Your task to perform on an android device: add a label to a message in the gmail app Image 0: 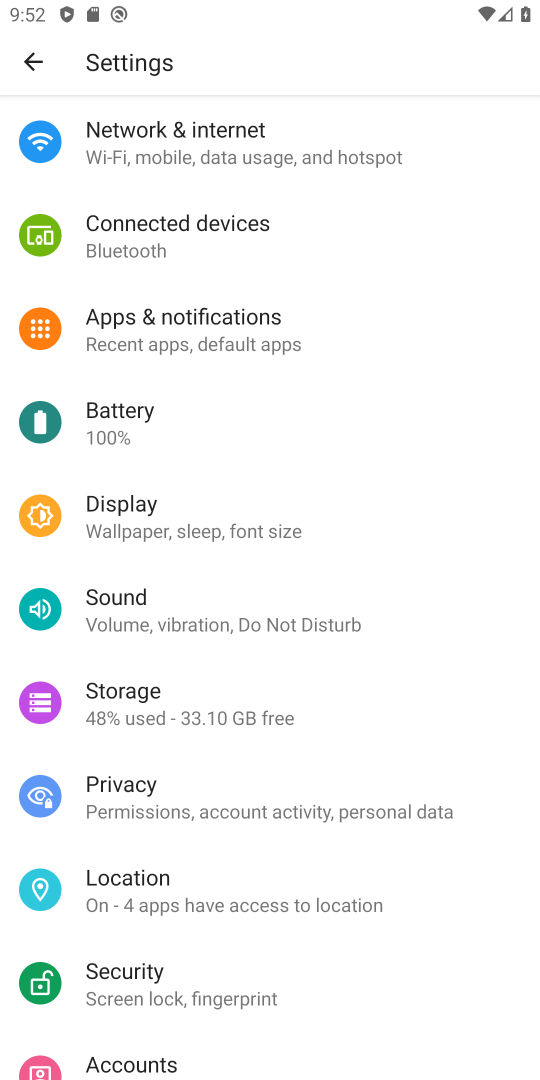
Step 0: press home button
Your task to perform on an android device: add a label to a message in the gmail app Image 1: 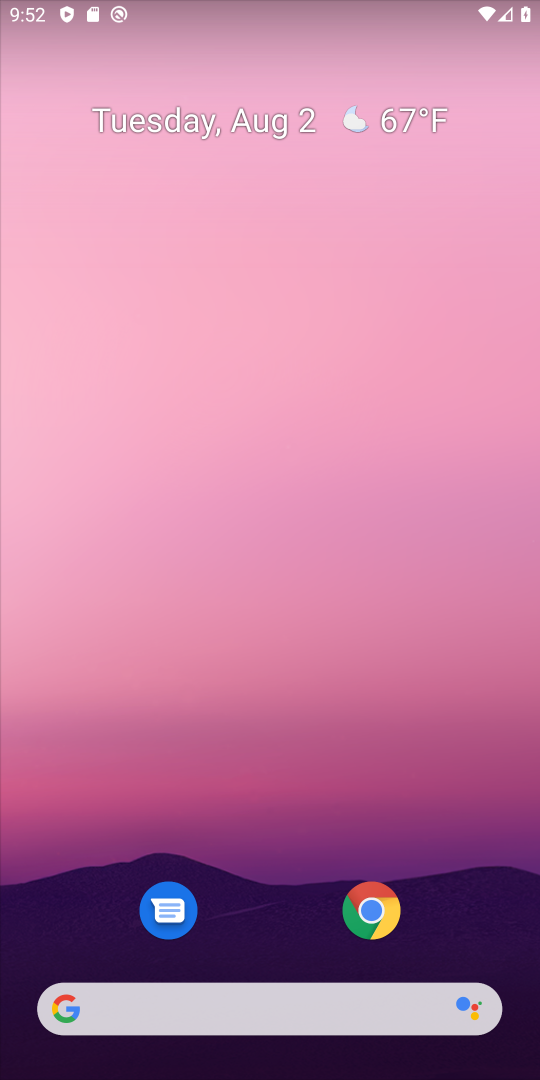
Step 1: drag from (249, 898) to (334, 250)
Your task to perform on an android device: add a label to a message in the gmail app Image 2: 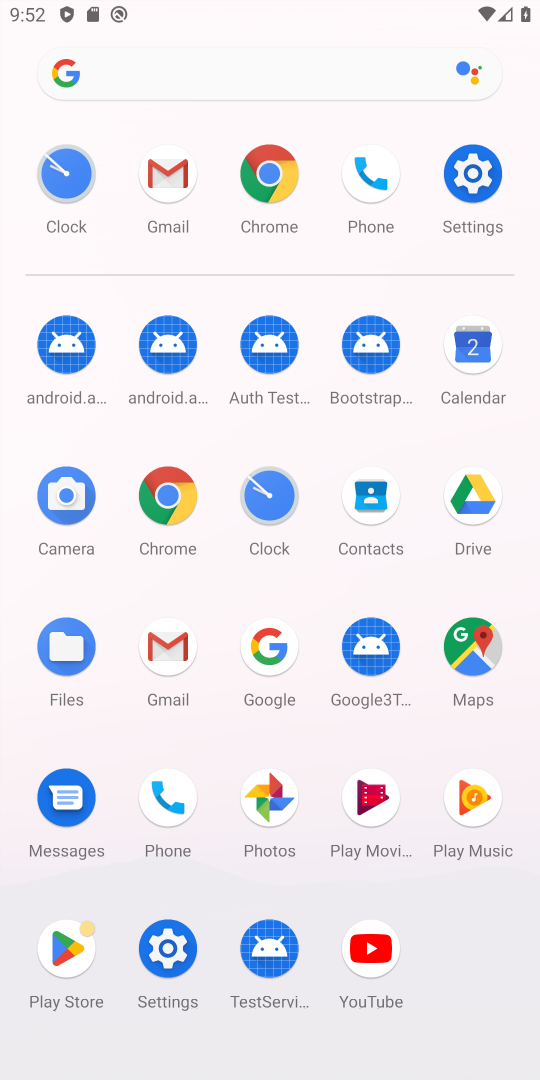
Step 2: click (177, 157)
Your task to perform on an android device: add a label to a message in the gmail app Image 3: 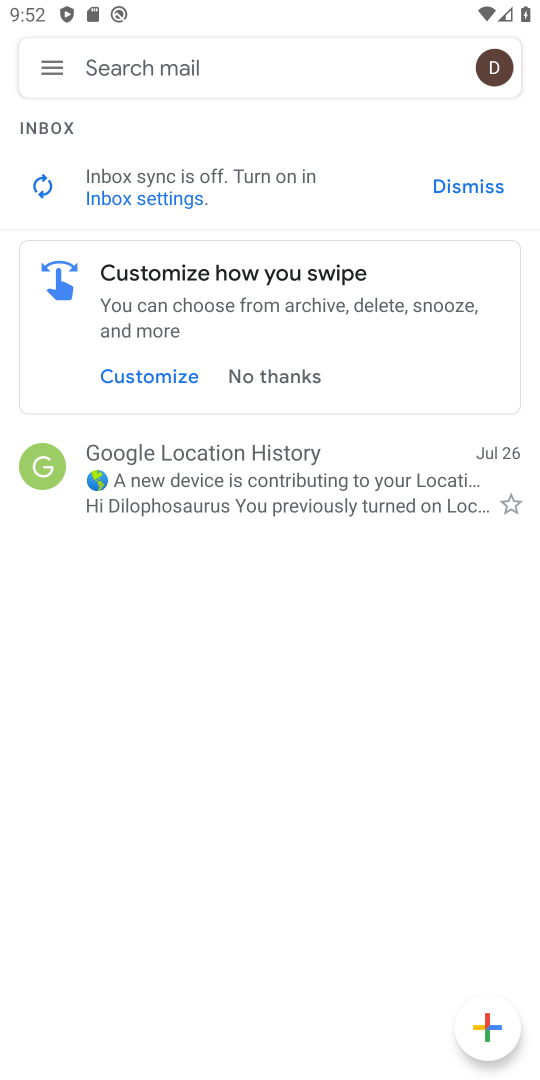
Step 3: click (116, 446)
Your task to perform on an android device: add a label to a message in the gmail app Image 4: 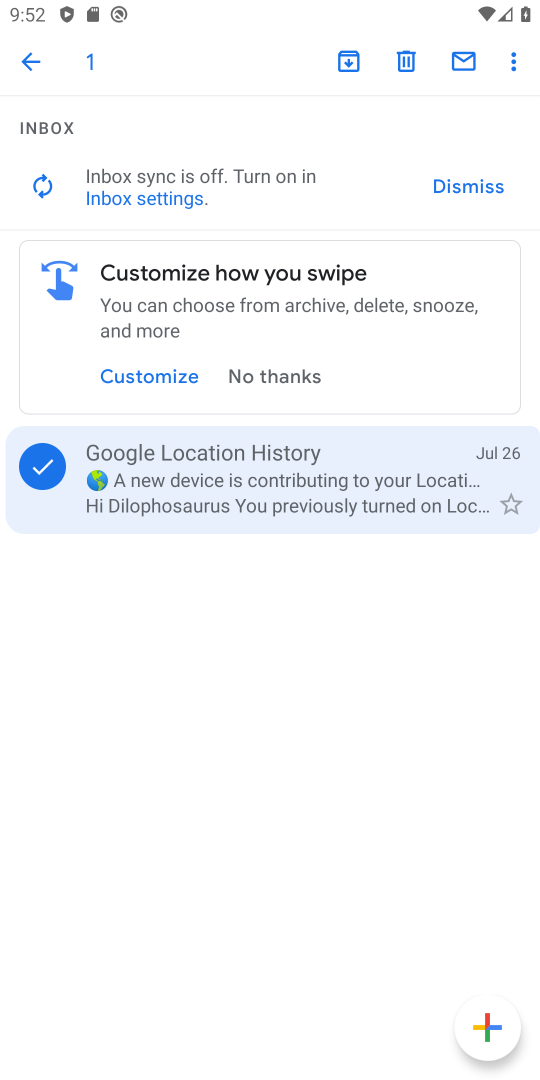
Step 4: click (527, 59)
Your task to perform on an android device: add a label to a message in the gmail app Image 5: 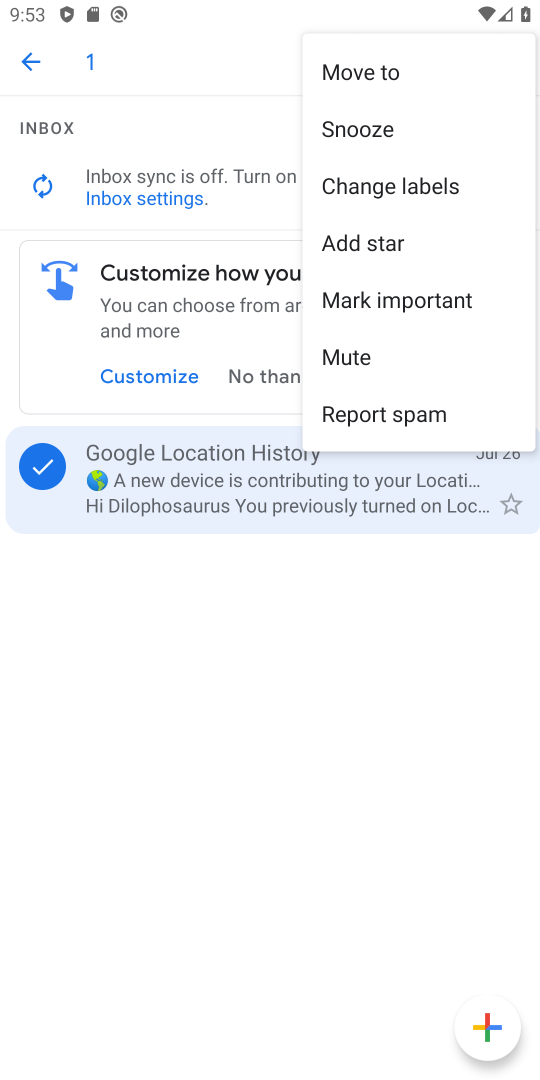
Step 5: click (150, 661)
Your task to perform on an android device: add a label to a message in the gmail app Image 6: 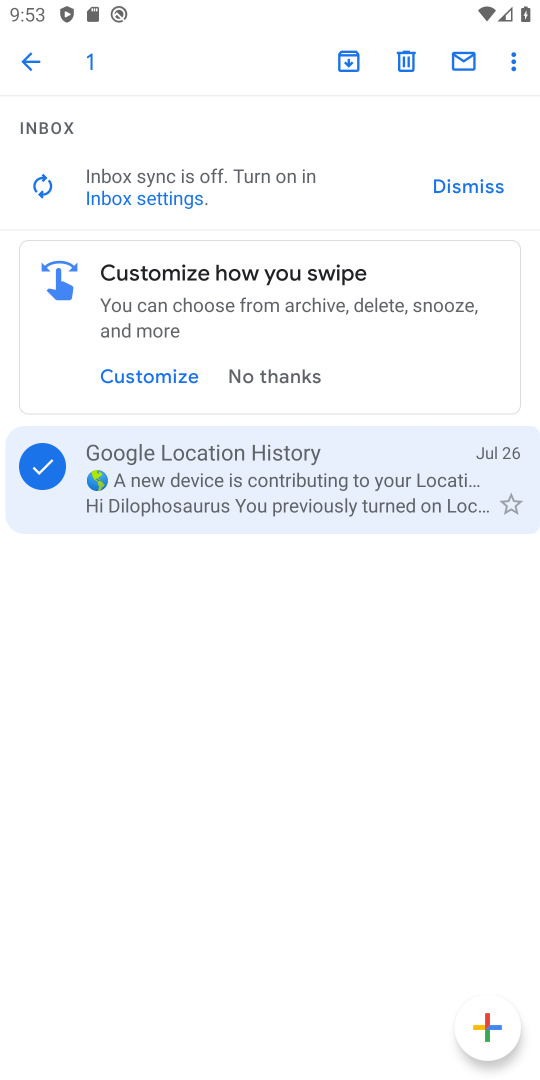
Step 6: click (515, 61)
Your task to perform on an android device: add a label to a message in the gmail app Image 7: 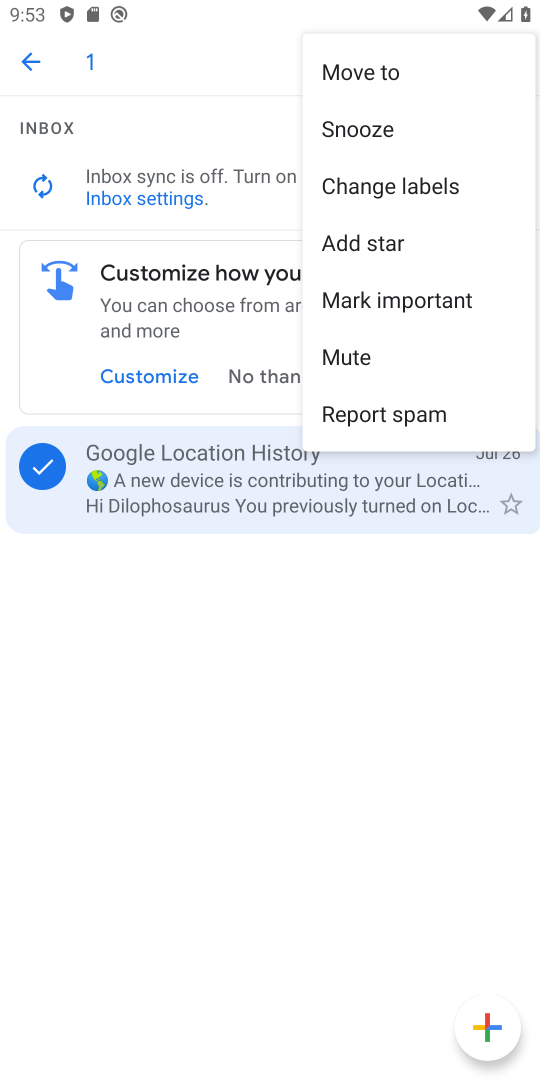
Step 7: click (372, 57)
Your task to perform on an android device: add a label to a message in the gmail app Image 8: 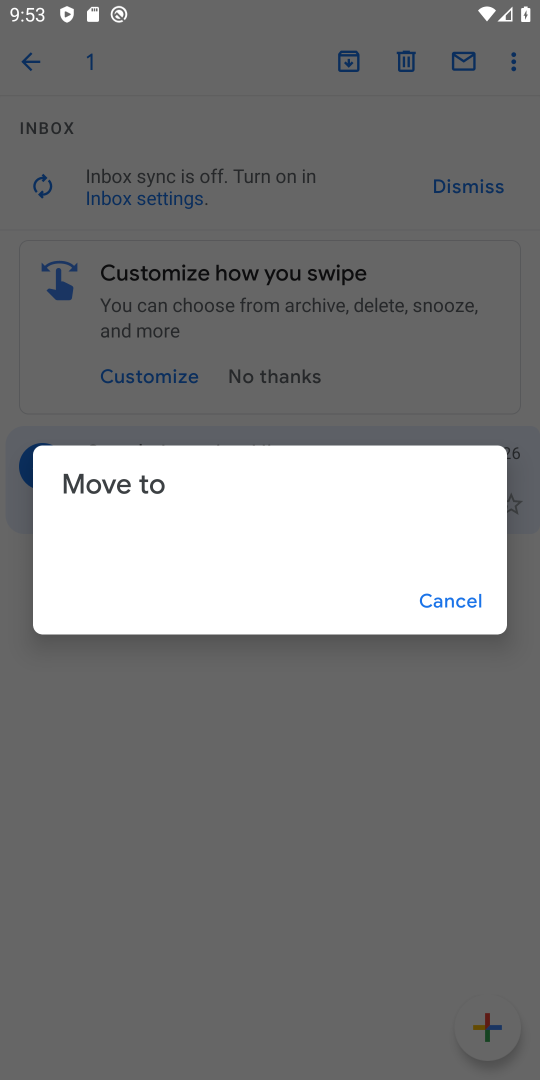
Step 8: click (414, 616)
Your task to perform on an android device: add a label to a message in the gmail app Image 9: 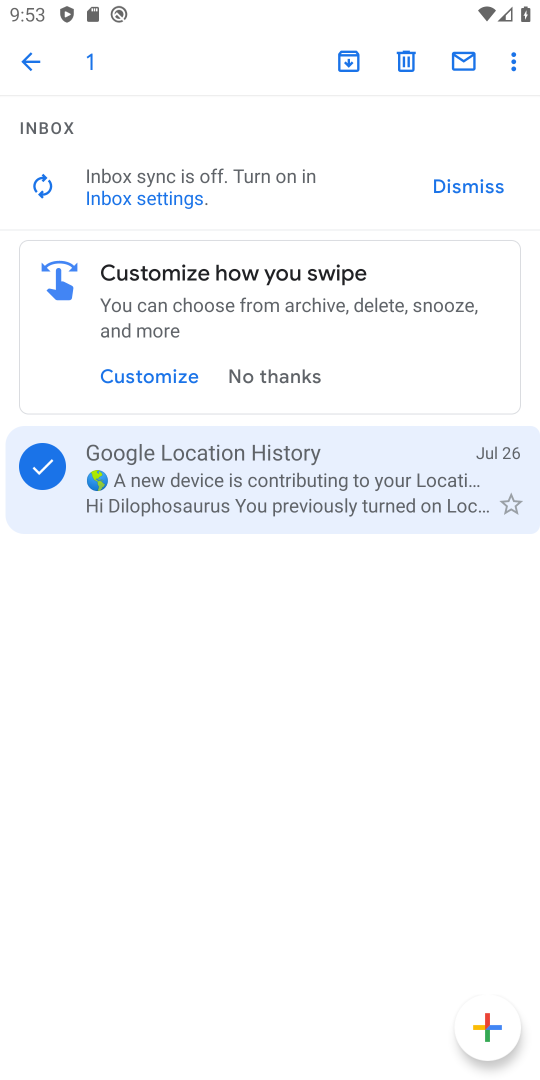
Step 9: click (530, 37)
Your task to perform on an android device: add a label to a message in the gmail app Image 10: 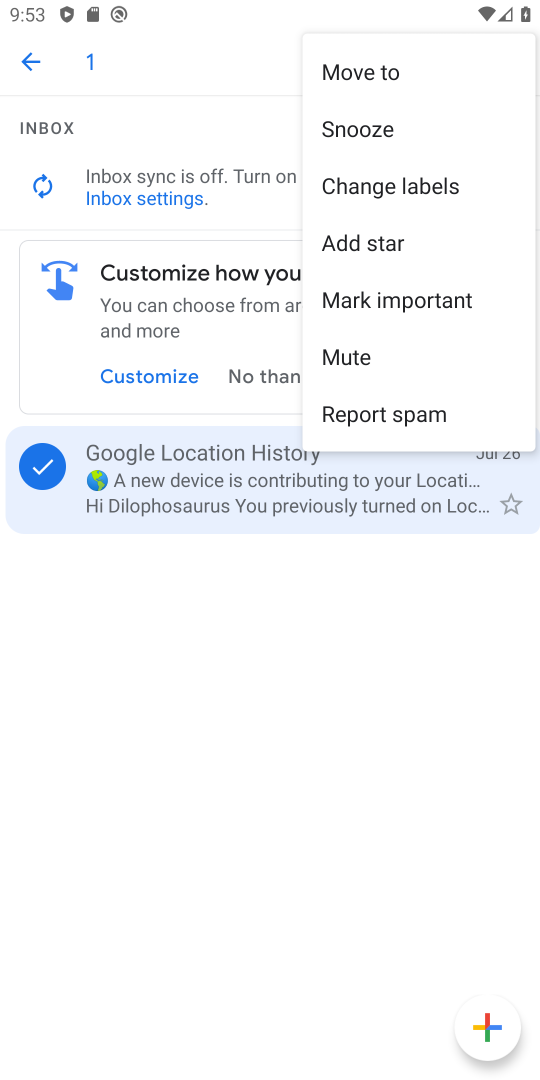
Step 10: click (401, 183)
Your task to perform on an android device: add a label to a message in the gmail app Image 11: 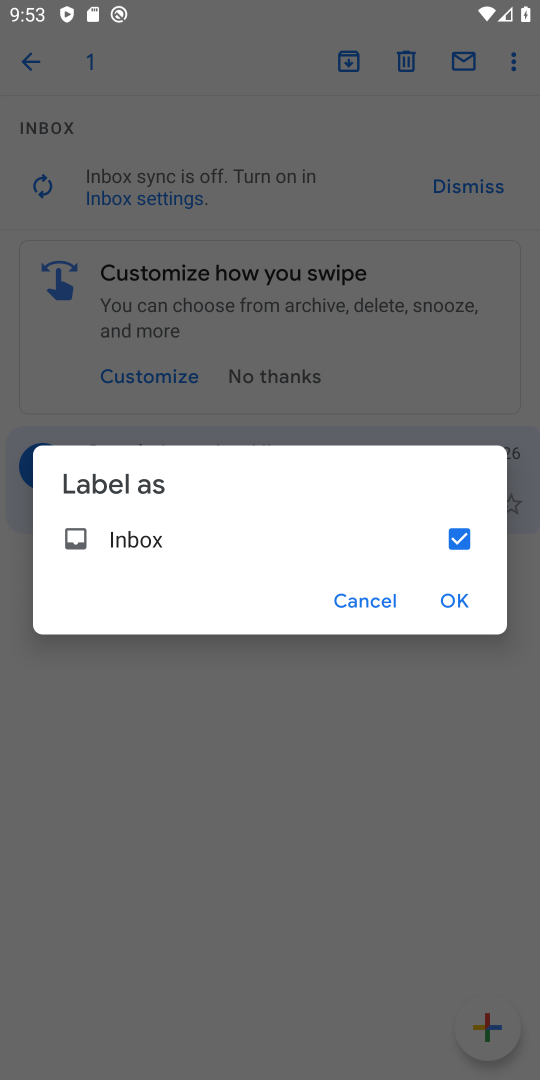
Step 11: click (430, 596)
Your task to perform on an android device: add a label to a message in the gmail app Image 12: 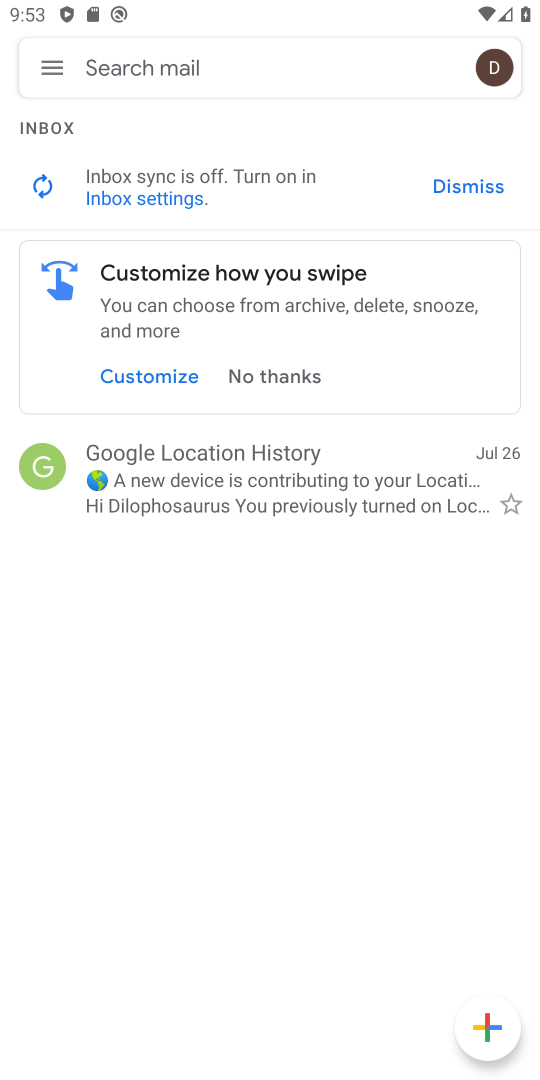
Step 12: task complete